Your task to perform on an android device: open sync settings in chrome Image 0: 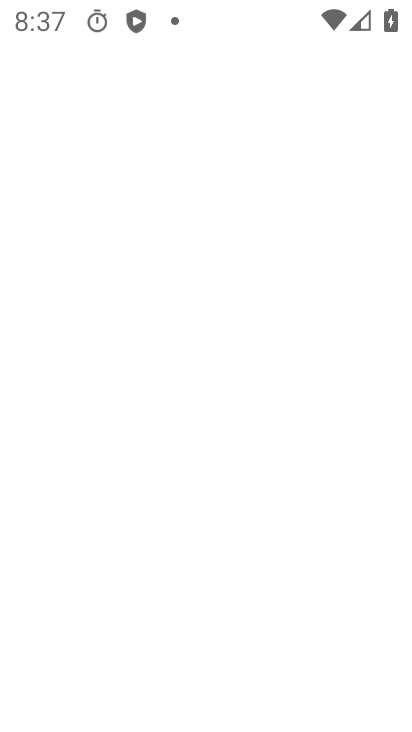
Step 0: press back button
Your task to perform on an android device: open sync settings in chrome Image 1: 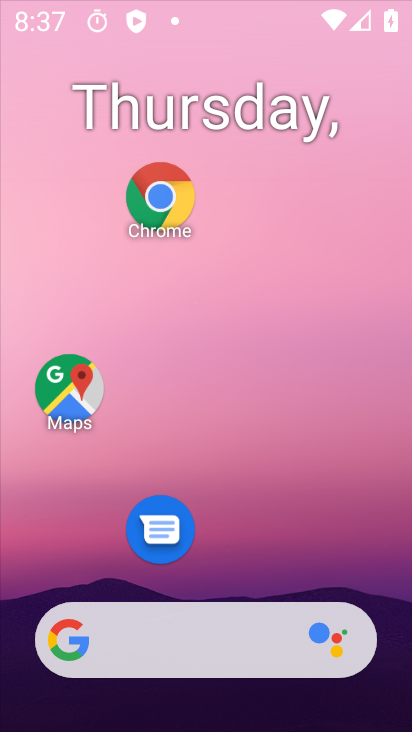
Step 1: press home button
Your task to perform on an android device: open sync settings in chrome Image 2: 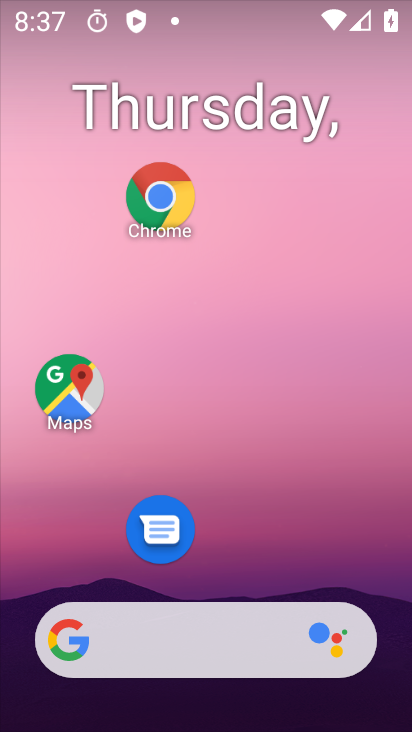
Step 2: drag from (243, 698) to (198, 176)
Your task to perform on an android device: open sync settings in chrome Image 3: 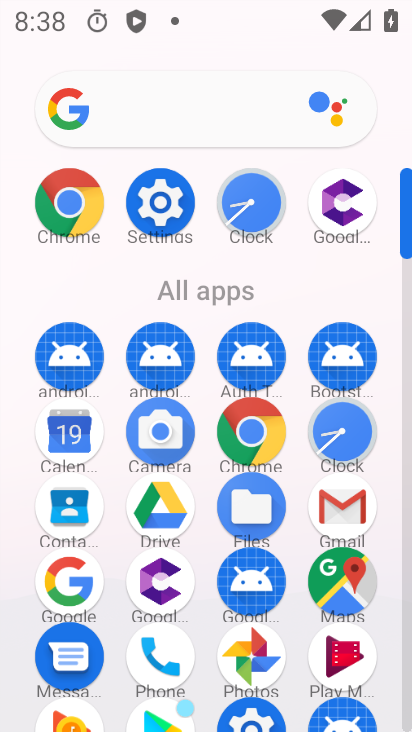
Step 3: click (60, 206)
Your task to perform on an android device: open sync settings in chrome Image 4: 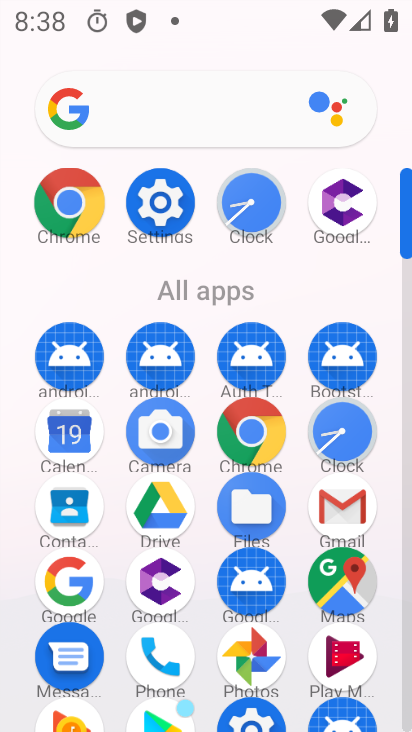
Step 4: click (60, 206)
Your task to perform on an android device: open sync settings in chrome Image 5: 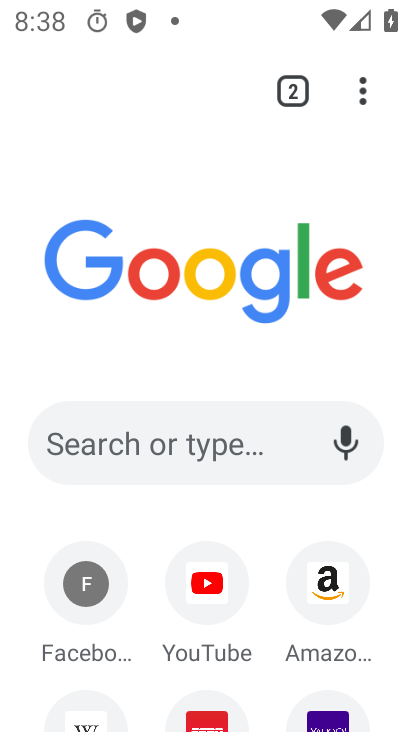
Step 5: click (357, 88)
Your task to perform on an android device: open sync settings in chrome Image 6: 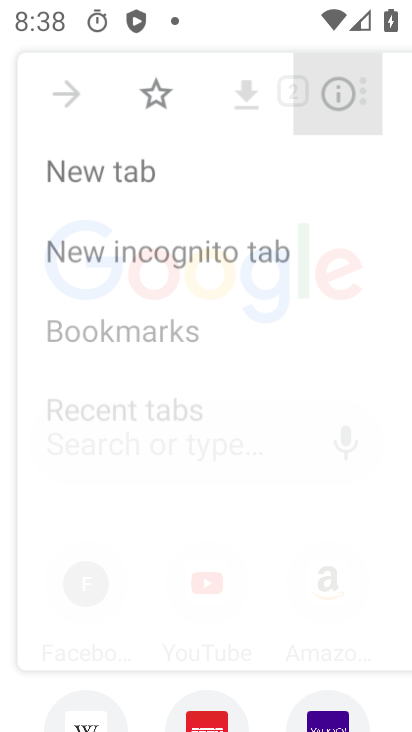
Step 6: drag from (360, 91) to (288, 494)
Your task to perform on an android device: open sync settings in chrome Image 7: 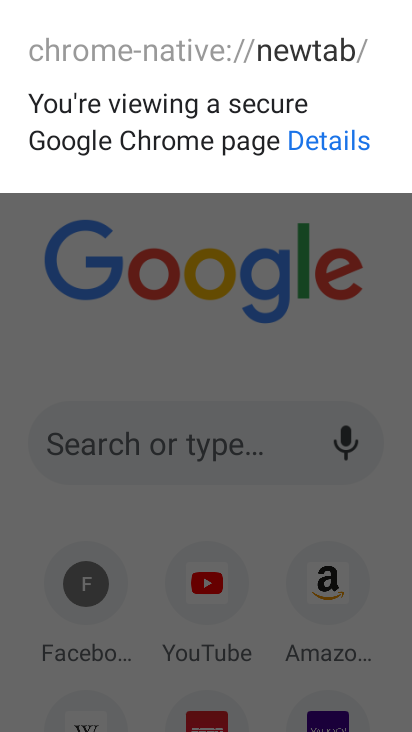
Step 7: click (358, 262)
Your task to perform on an android device: open sync settings in chrome Image 8: 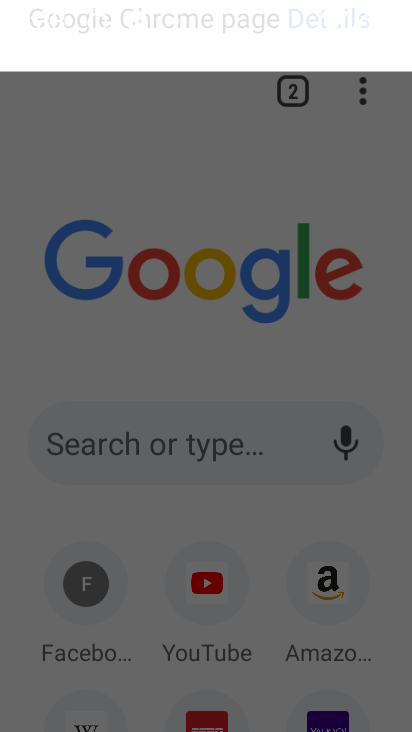
Step 8: click (364, 253)
Your task to perform on an android device: open sync settings in chrome Image 9: 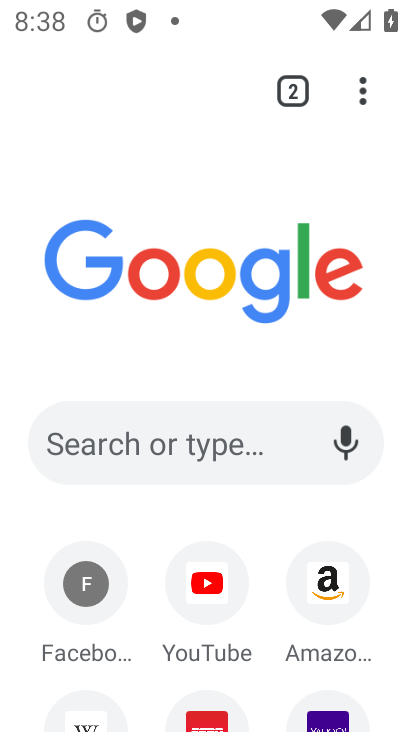
Step 9: click (365, 251)
Your task to perform on an android device: open sync settings in chrome Image 10: 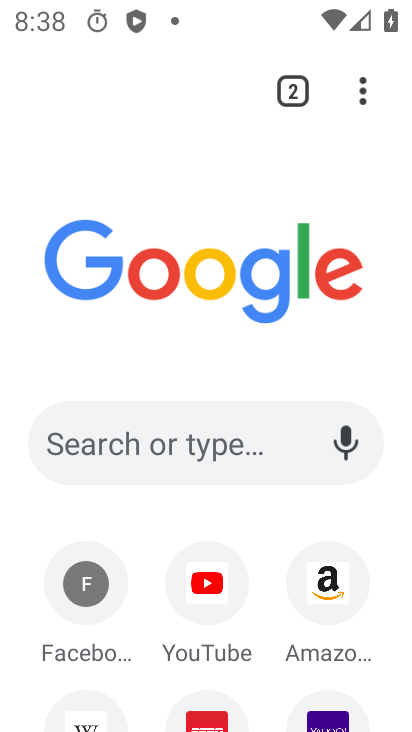
Step 10: drag from (354, 91) to (96, 555)
Your task to perform on an android device: open sync settings in chrome Image 11: 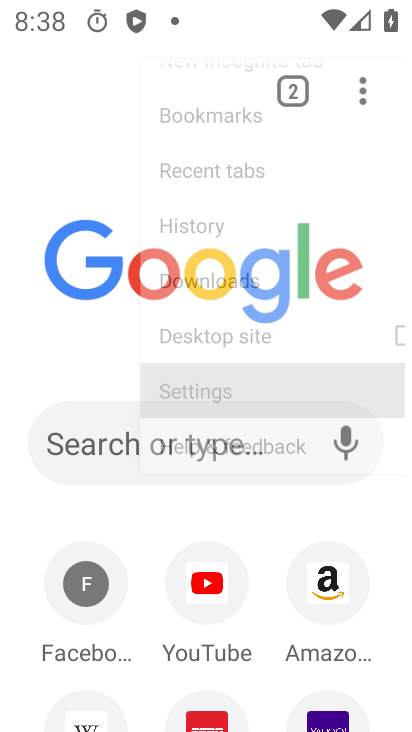
Step 11: click (96, 555)
Your task to perform on an android device: open sync settings in chrome Image 12: 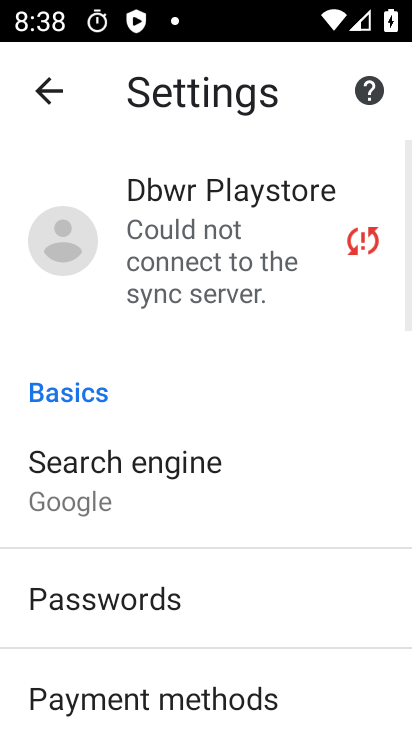
Step 12: drag from (171, 555) to (149, 90)
Your task to perform on an android device: open sync settings in chrome Image 13: 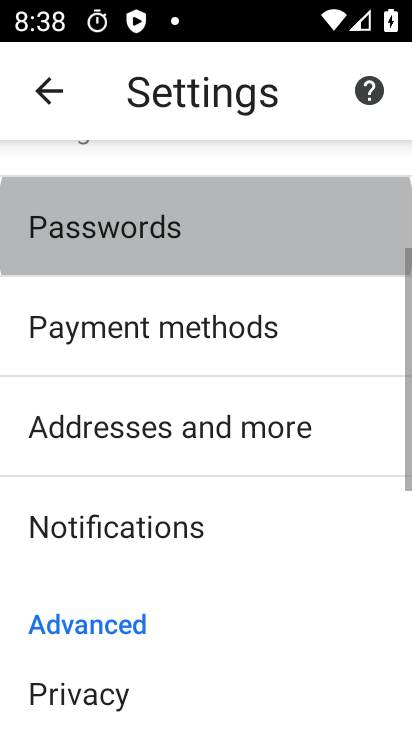
Step 13: drag from (195, 511) to (216, 123)
Your task to perform on an android device: open sync settings in chrome Image 14: 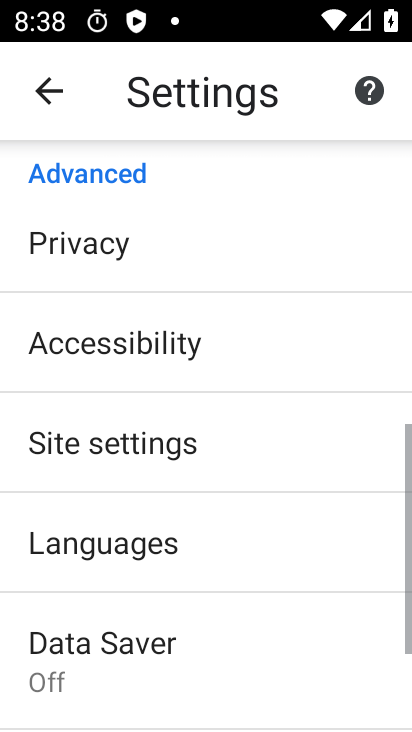
Step 14: drag from (161, 441) to (158, 89)
Your task to perform on an android device: open sync settings in chrome Image 15: 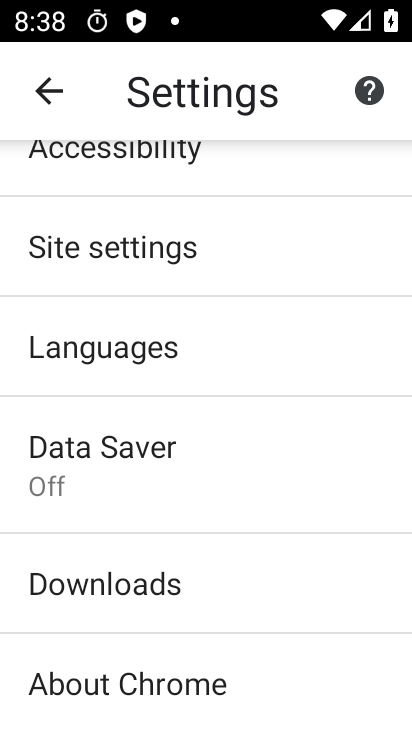
Step 15: click (91, 249)
Your task to perform on an android device: open sync settings in chrome Image 16: 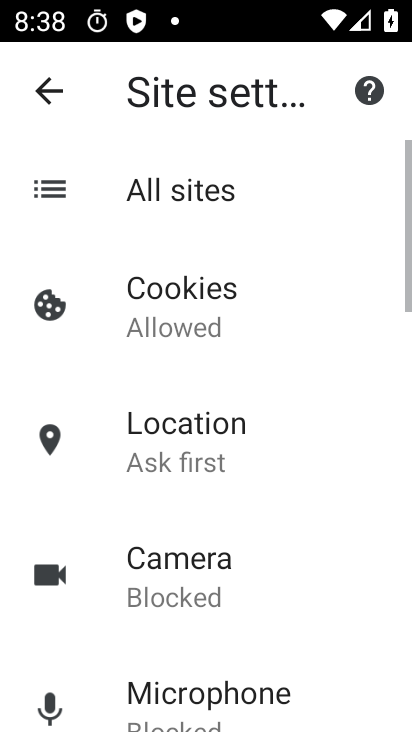
Step 16: drag from (220, 550) to (232, 273)
Your task to perform on an android device: open sync settings in chrome Image 17: 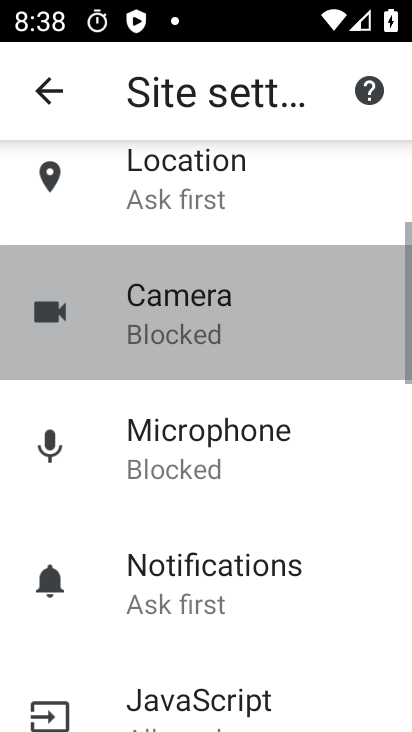
Step 17: drag from (211, 491) to (208, 193)
Your task to perform on an android device: open sync settings in chrome Image 18: 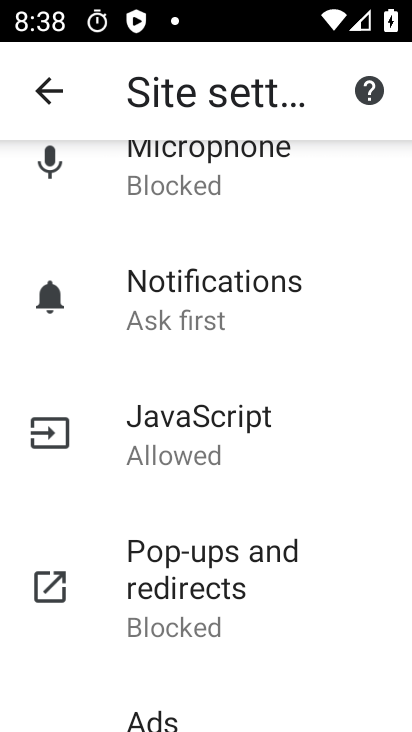
Step 18: drag from (206, 542) to (178, 166)
Your task to perform on an android device: open sync settings in chrome Image 19: 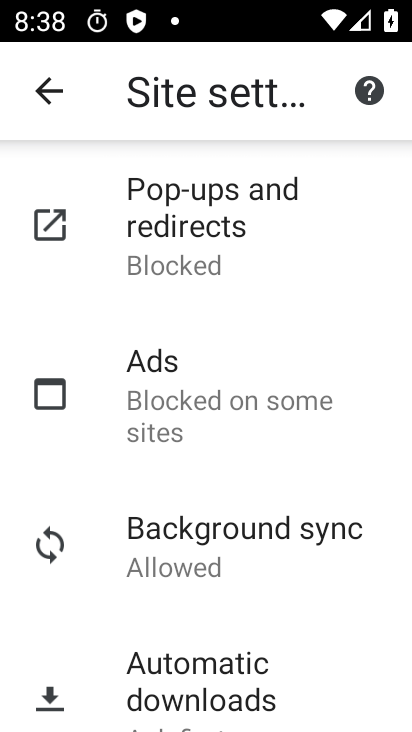
Step 19: click (209, 519)
Your task to perform on an android device: open sync settings in chrome Image 20: 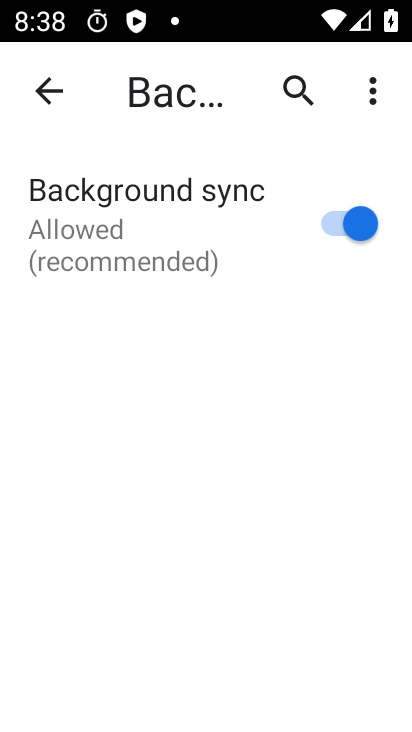
Step 20: task complete